Your task to perform on an android device: check google app version Image 0: 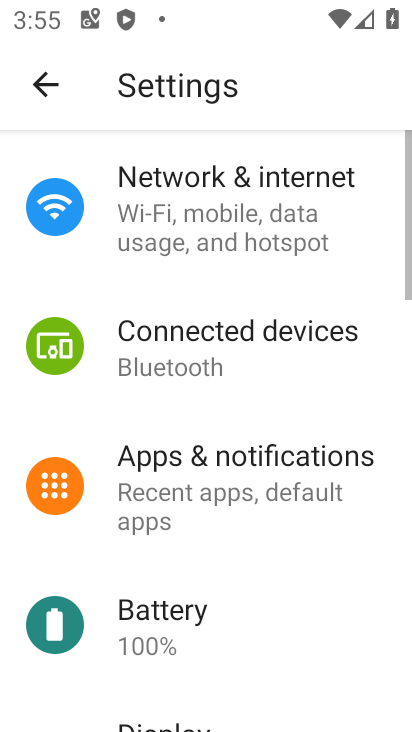
Step 0: press back button
Your task to perform on an android device: check google app version Image 1: 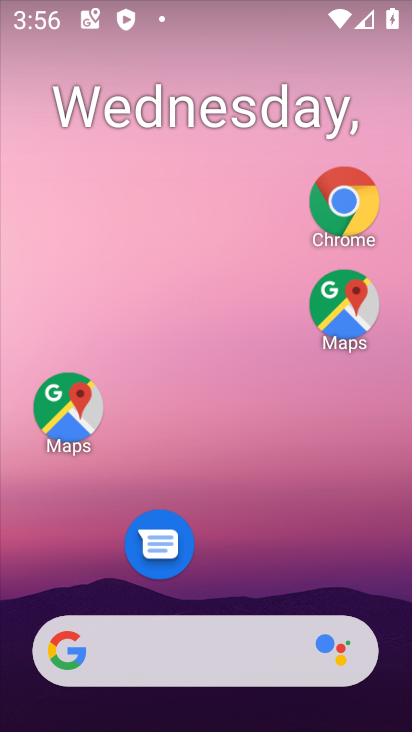
Step 1: click (330, 206)
Your task to perform on an android device: check google app version Image 2: 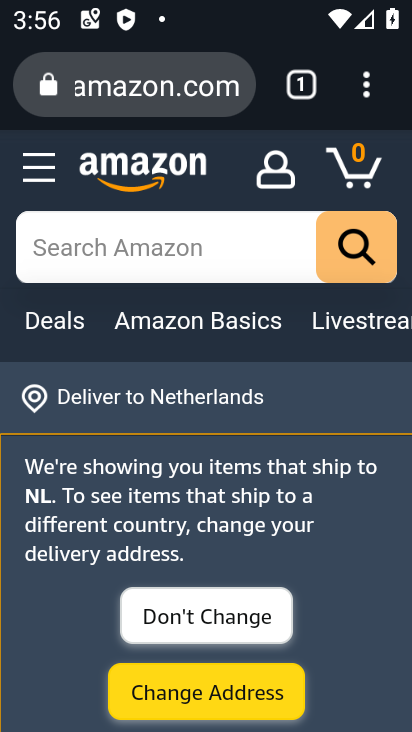
Step 2: press home button
Your task to perform on an android device: check google app version Image 3: 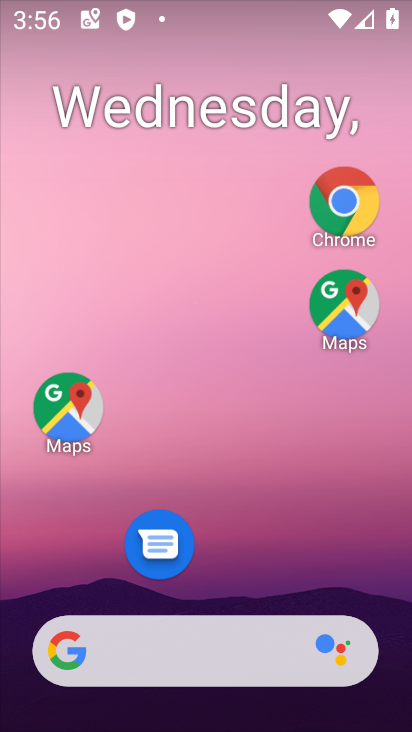
Step 3: click (94, 634)
Your task to perform on an android device: check google app version Image 4: 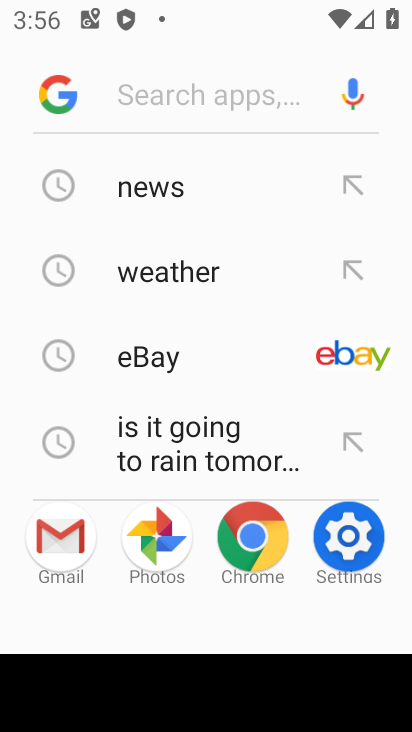
Step 4: click (52, 102)
Your task to perform on an android device: check google app version Image 5: 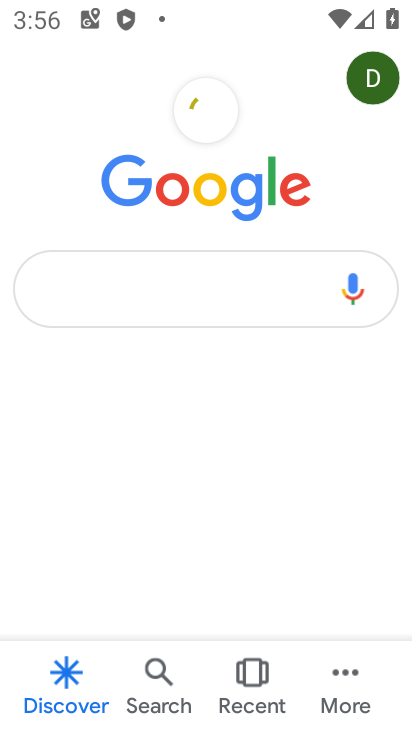
Step 5: click (341, 697)
Your task to perform on an android device: check google app version Image 6: 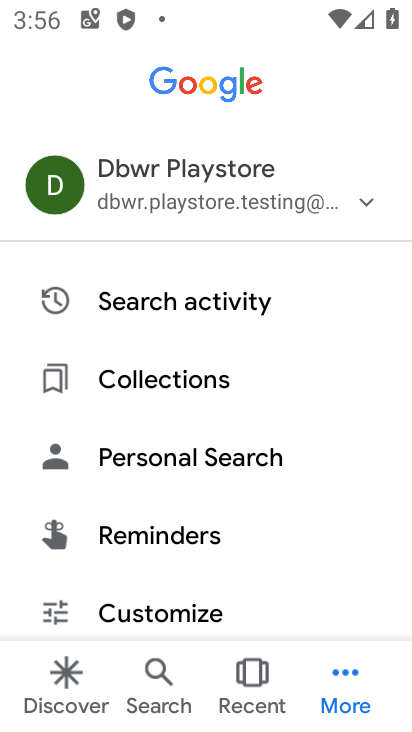
Step 6: drag from (170, 547) to (166, 355)
Your task to perform on an android device: check google app version Image 7: 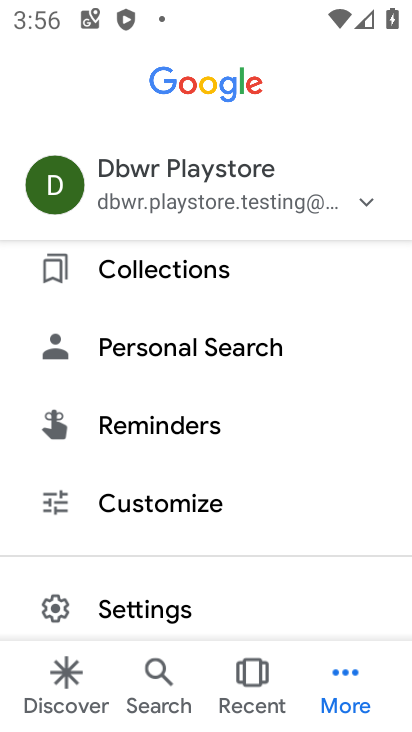
Step 7: click (195, 607)
Your task to perform on an android device: check google app version Image 8: 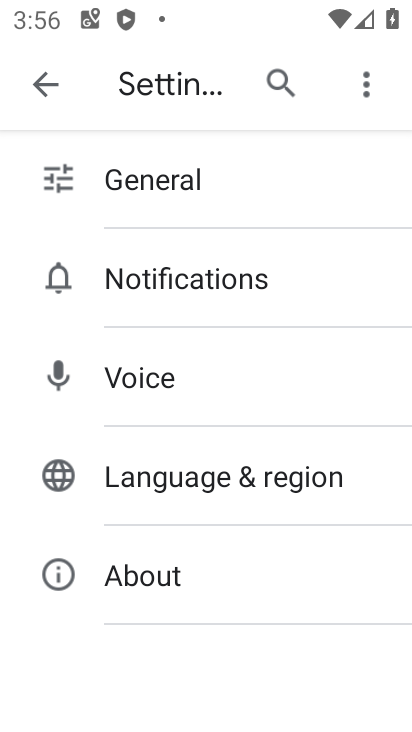
Step 8: click (158, 576)
Your task to perform on an android device: check google app version Image 9: 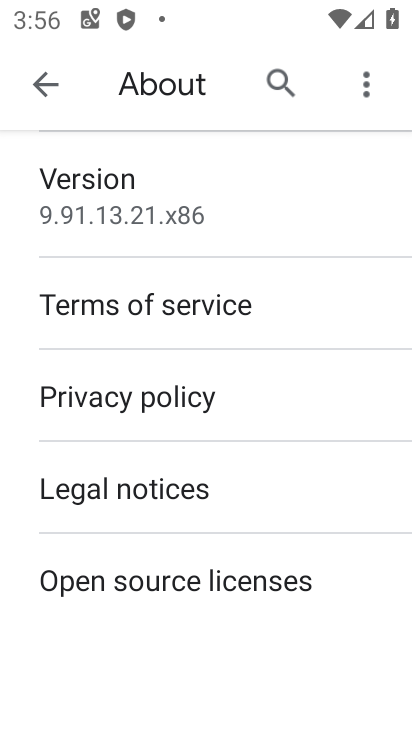
Step 9: task complete